Your task to perform on an android device: install app "Spotify" Image 0: 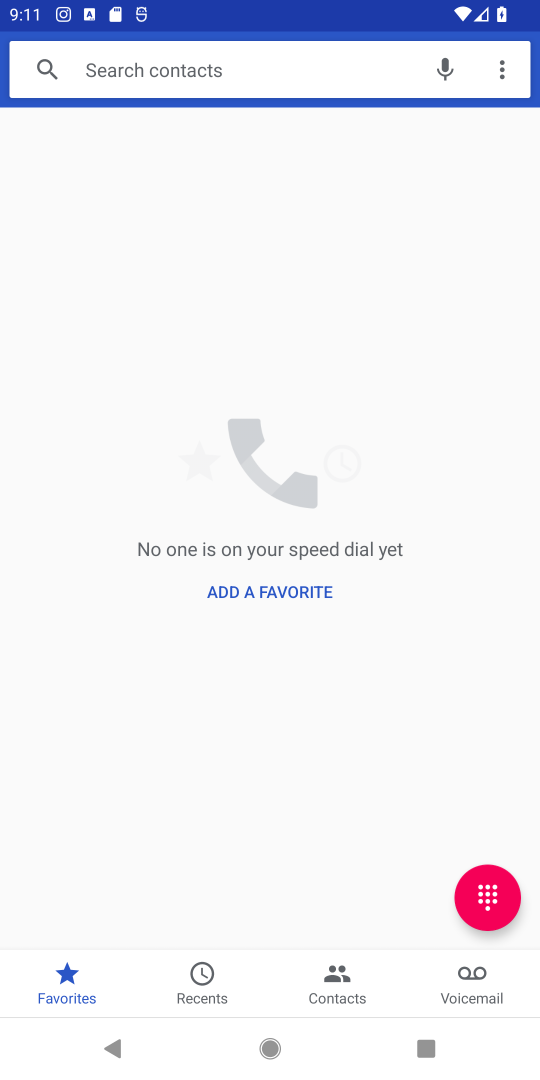
Step 0: press home button
Your task to perform on an android device: install app "Spotify" Image 1: 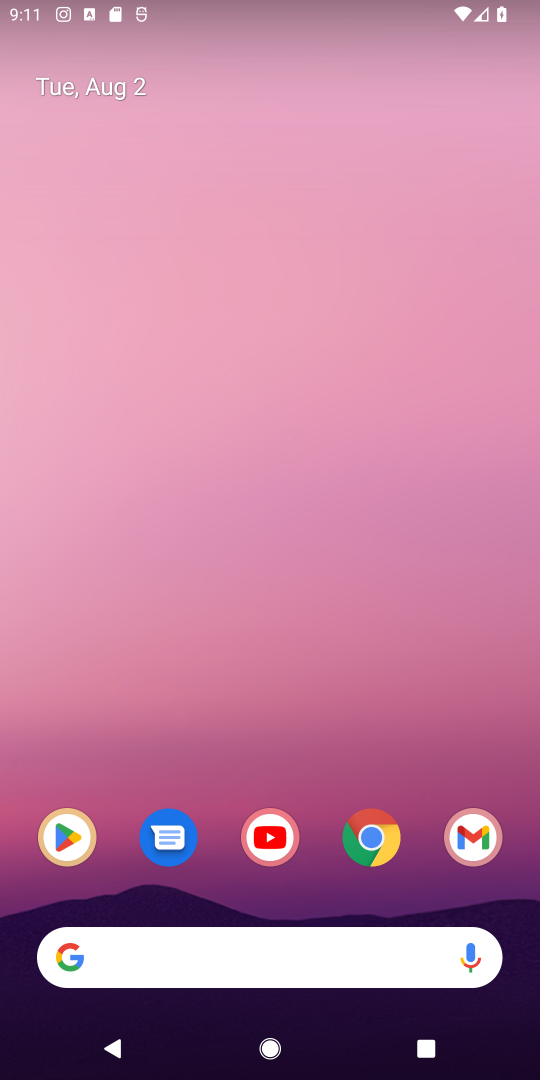
Step 1: click (65, 844)
Your task to perform on an android device: install app "Spotify" Image 2: 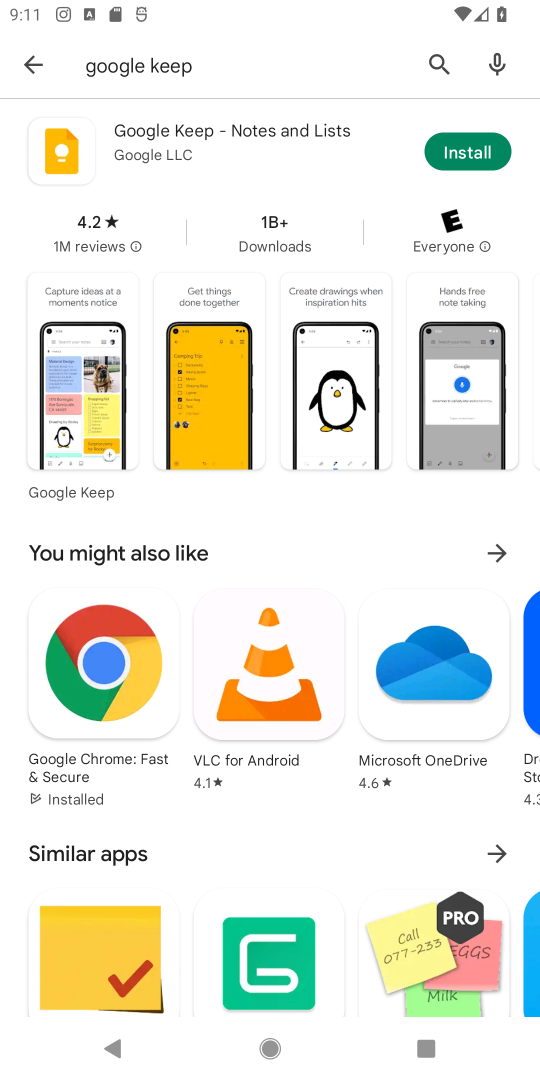
Step 2: click (432, 55)
Your task to perform on an android device: install app "Spotify" Image 3: 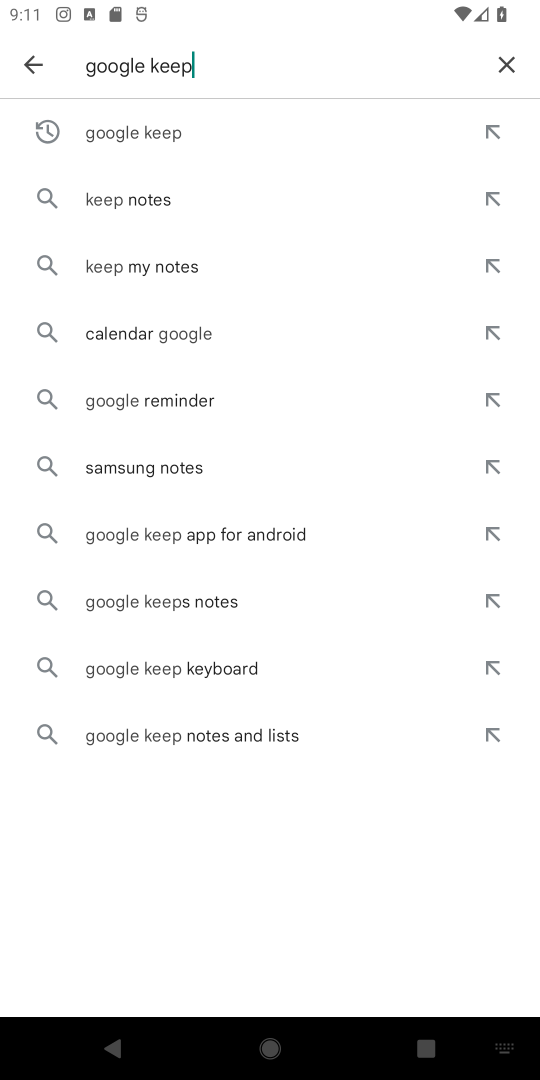
Step 3: click (504, 70)
Your task to perform on an android device: install app "Spotify" Image 4: 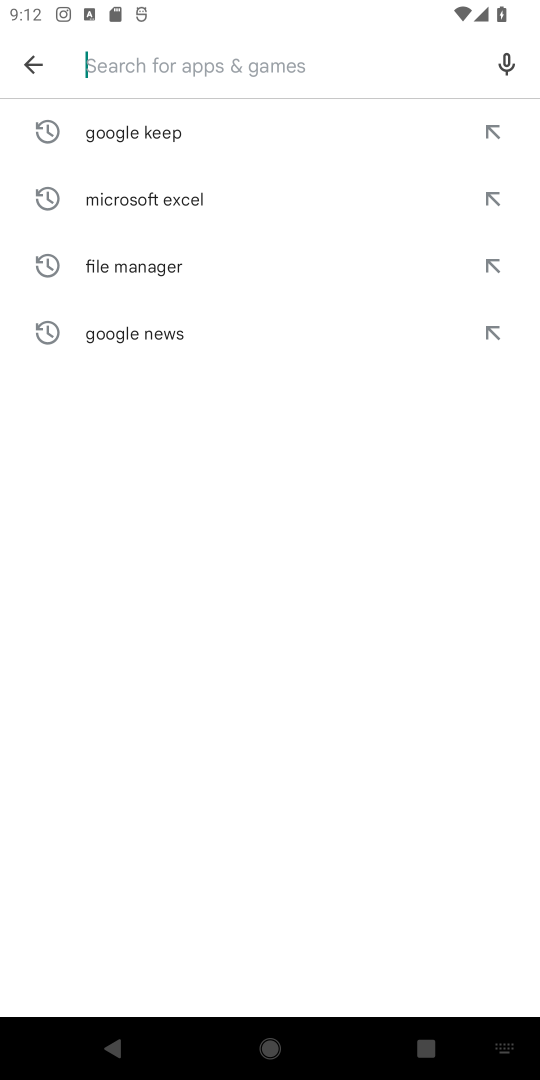
Step 4: type "Spotify"
Your task to perform on an android device: install app "Spotify" Image 5: 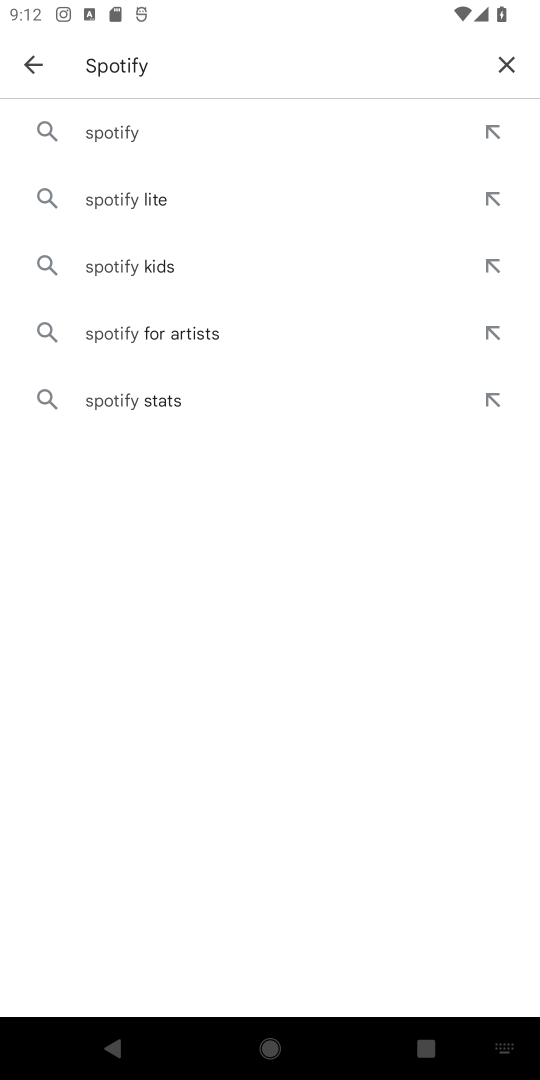
Step 5: click (109, 146)
Your task to perform on an android device: install app "Spotify" Image 6: 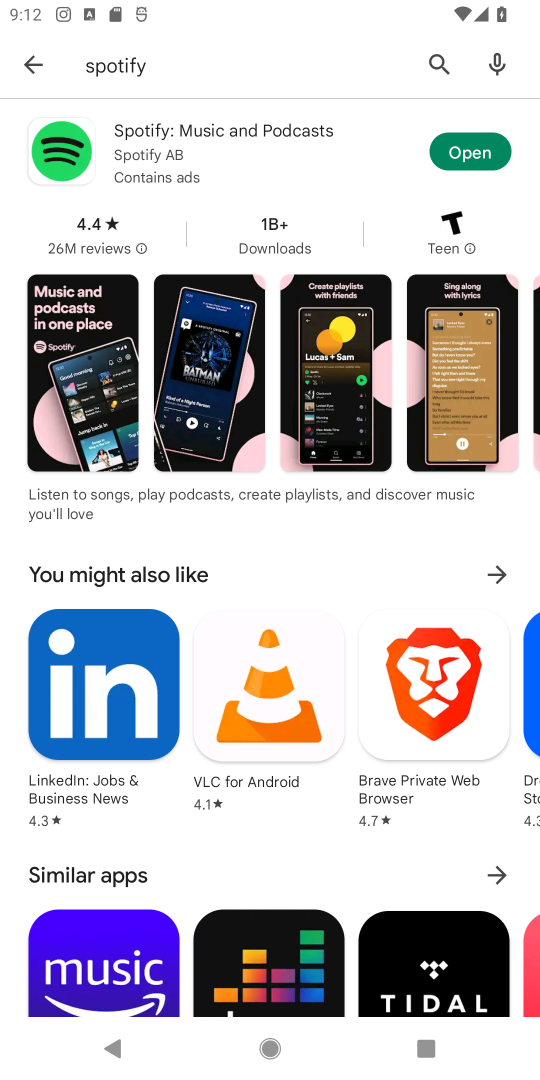
Step 6: task complete